Your task to perform on an android device: Search for seafood restaurants on Google Maps Image 0: 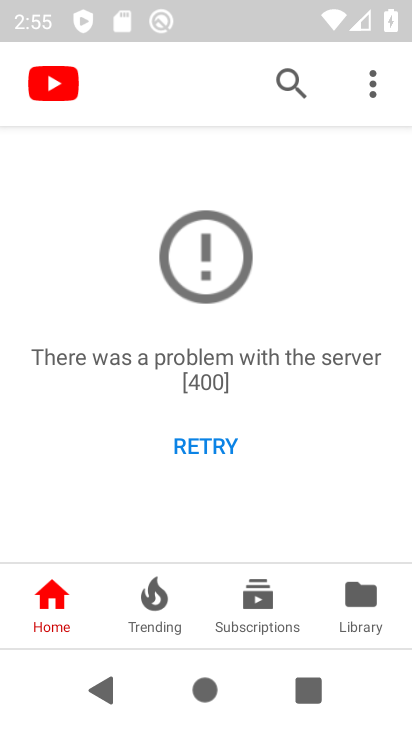
Step 0: press home button
Your task to perform on an android device: Search for seafood restaurants on Google Maps Image 1: 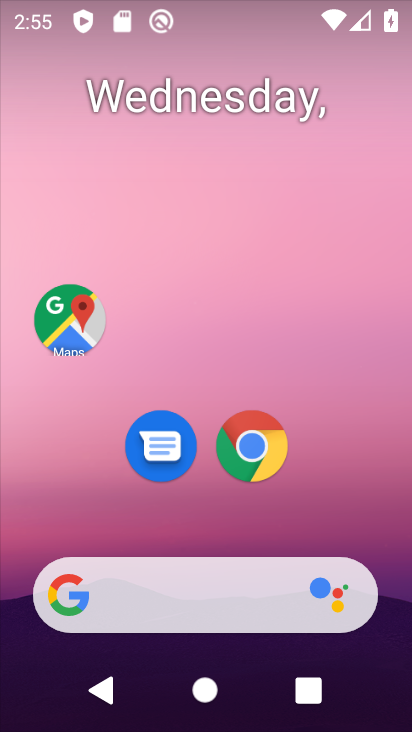
Step 1: click (82, 311)
Your task to perform on an android device: Search for seafood restaurants on Google Maps Image 2: 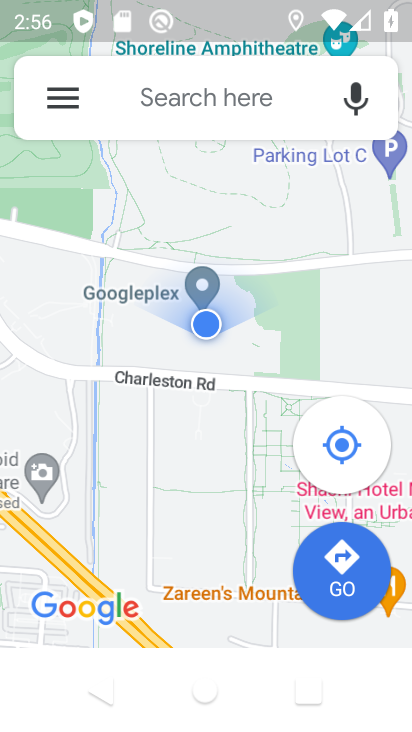
Step 2: click (209, 108)
Your task to perform on an android device: Search for seafood restaurants on Google Maps Image 3: 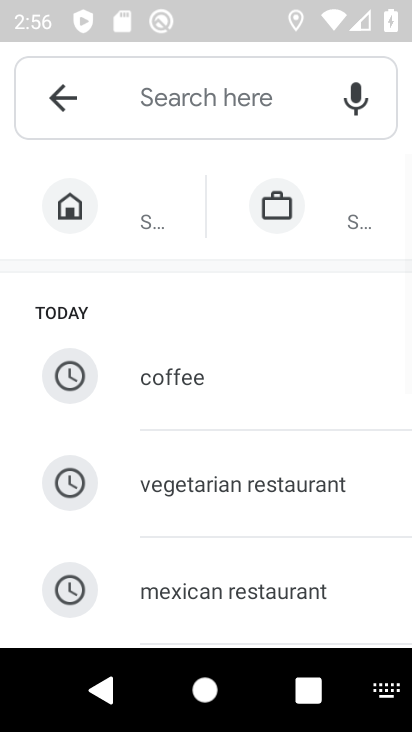
Step 3: drag from (260, 559) to (218, 250)
Your task to perform on an android device: Search for seafood restaurants on Google Maps Image 4: 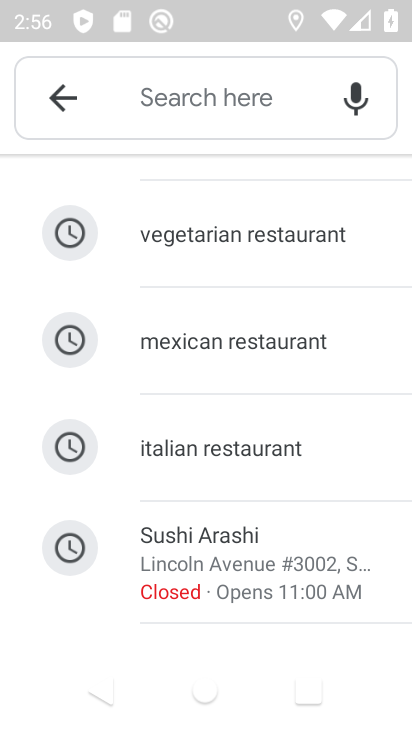
Step 4: drag from (244, 606) to (212, 204)
Your task to perform on an android device: Search for seafood restaurants on Google Maps Image 5: 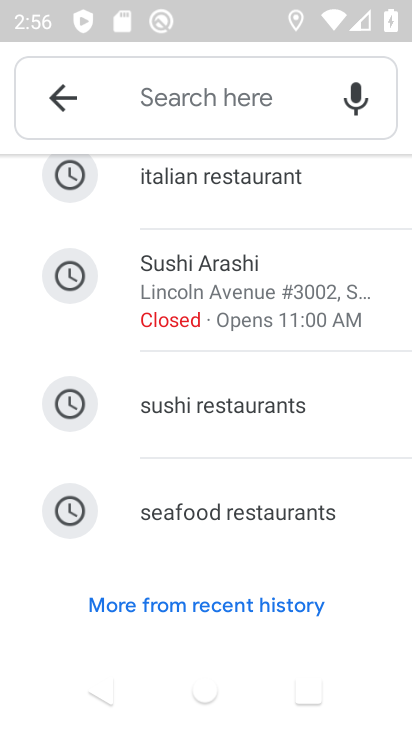
Step 5: click (228, 491)
Your task to perform on an android device: Search for seafood restaurants on Google Maps Image 6: 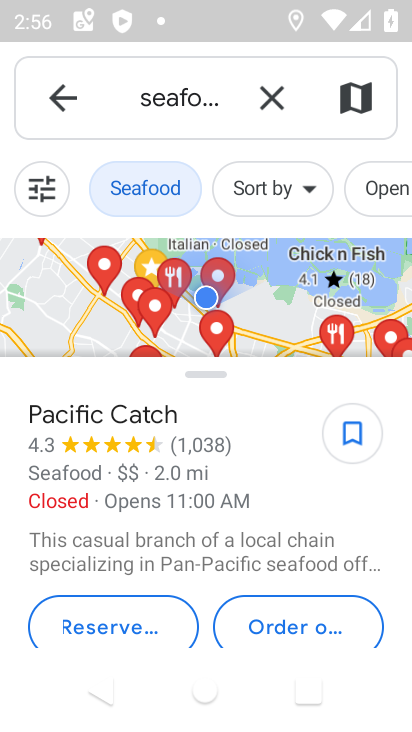
Step 6: task complete